Your task to perform on an android device: change the clock display to analog Image 0: 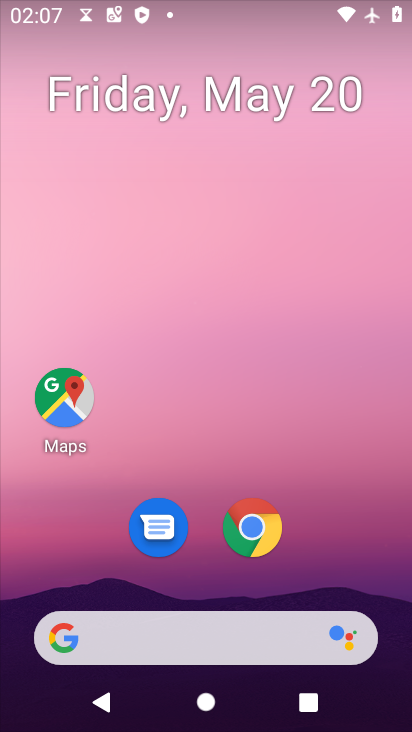
Step 0: press home button
Your task to perform on an android device: change the clock display to analog Image 1: 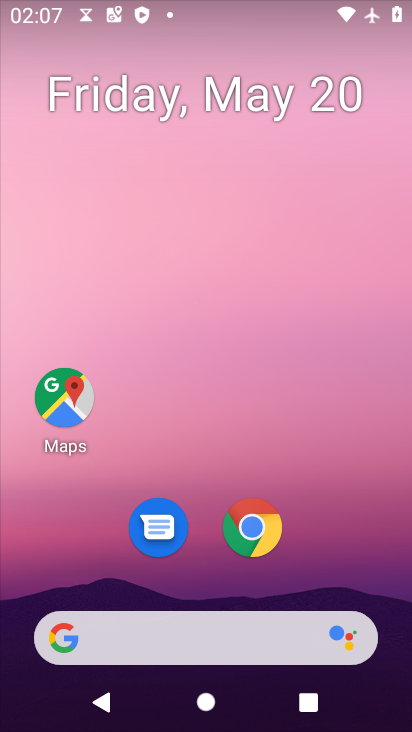
Step 1: drag from (174, 617) to (314, 185)
Your task to perform on an android device: change the clock display to analog Image 2: 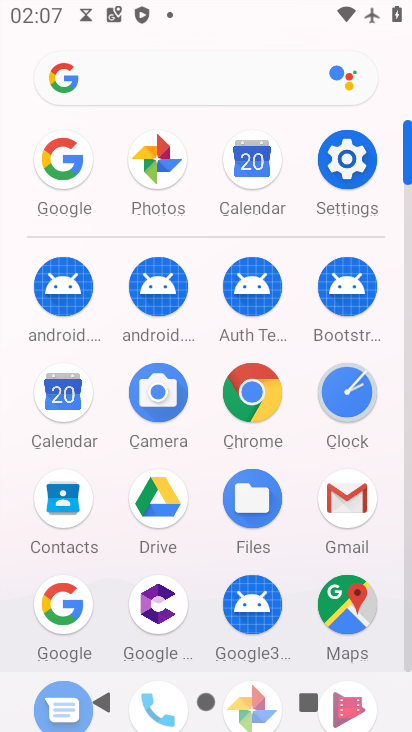
Step 2: click (336, 395)
Your task to perform on an android device: change the clock display to analog Image 3: 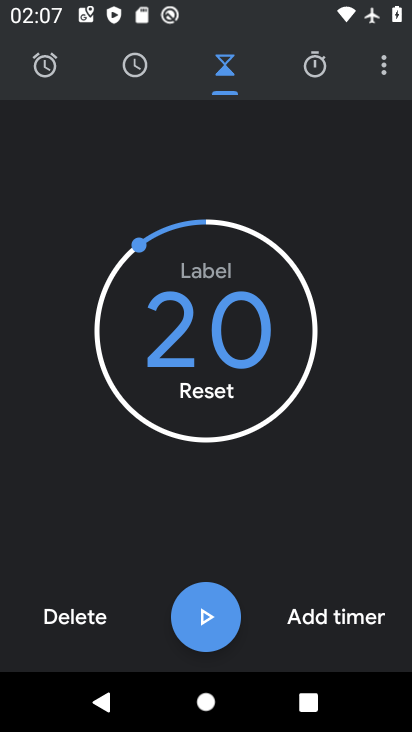
Step 3: click (379, 72)
Your task to perform on an android device: change the clock display to analog Image 4: 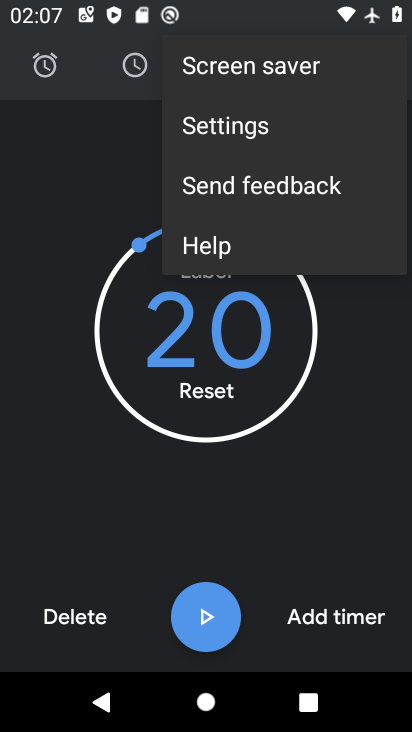
Step 4: click (257, 131)
Your task to perform on an android device: change the clock display to analog Image 5: 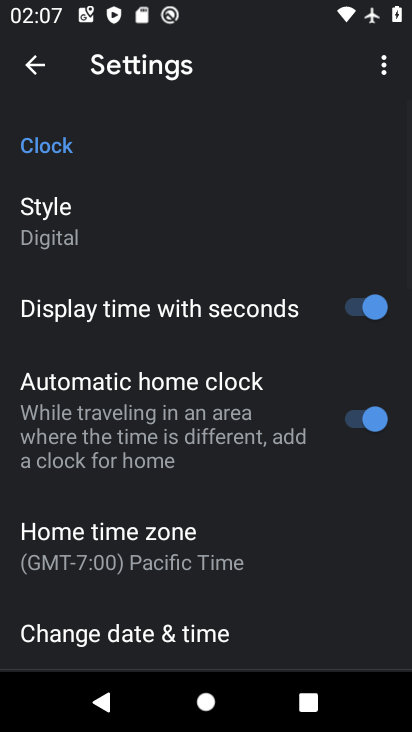
Step 5: click (68, 225)
Your task to perform on an android device: change the clock display to analog Image 6: 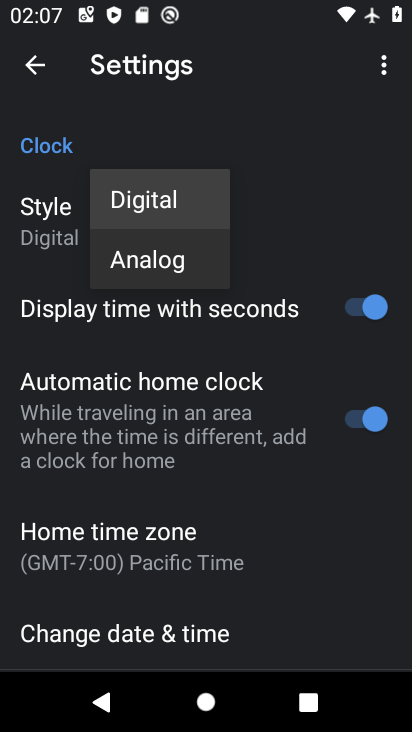
Step 6: click (139, 258)
Your task to perform on an android device: change the clock display to analog Image 7: 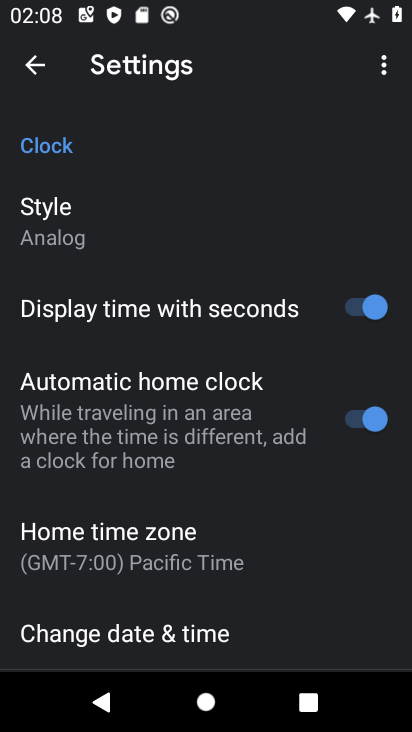
Step 7: task complete